Your task to perform on an android device: Show the shopping cart on bestbuy.com. Add "razer deathadder" to the cart on bestbuy.com Image 0: 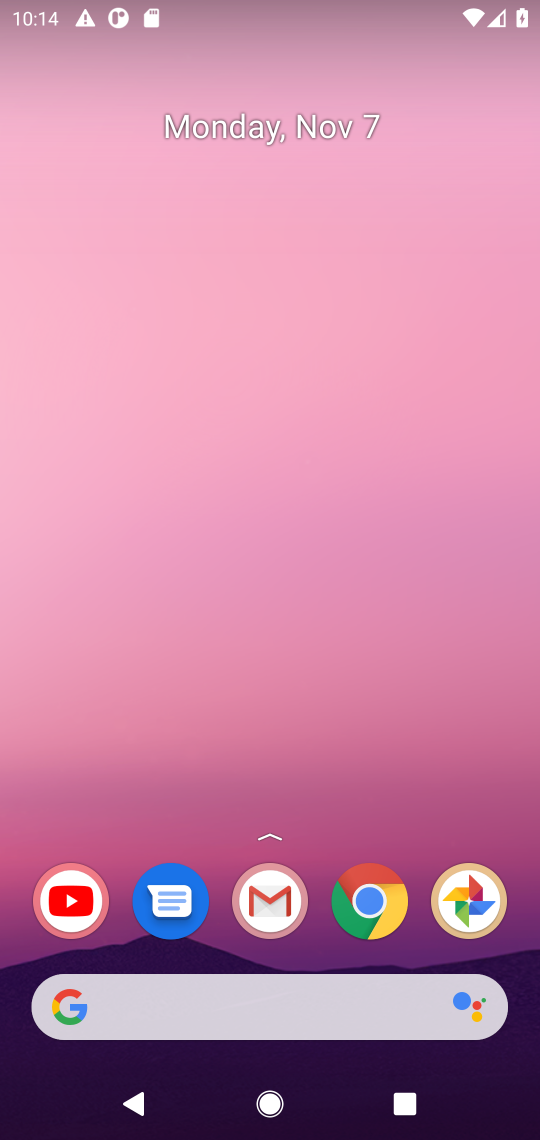
Step 0: click (362, 900)
Your task to perform on an android device: Show the shopping cart on bestbuy.com. Add "razer deathadder" to the cart on bestbuy.com Image 1: 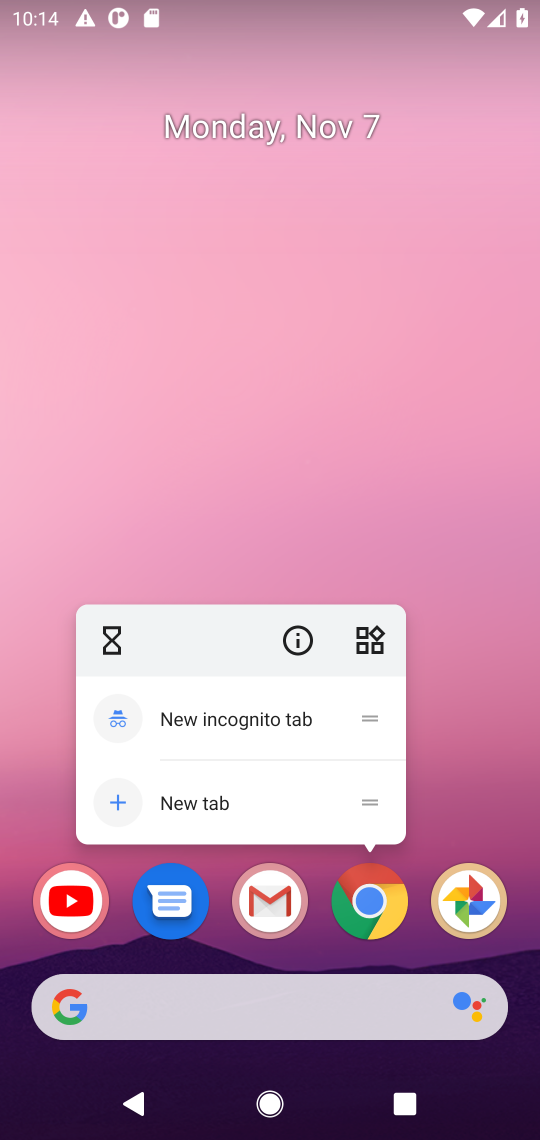
Step 1: click (362, 900)
Your task to perform on an android device: Show the shopping cart on bestbuy.com. Add "razer deathadder" to the cart on bestbuy.com Image 2: 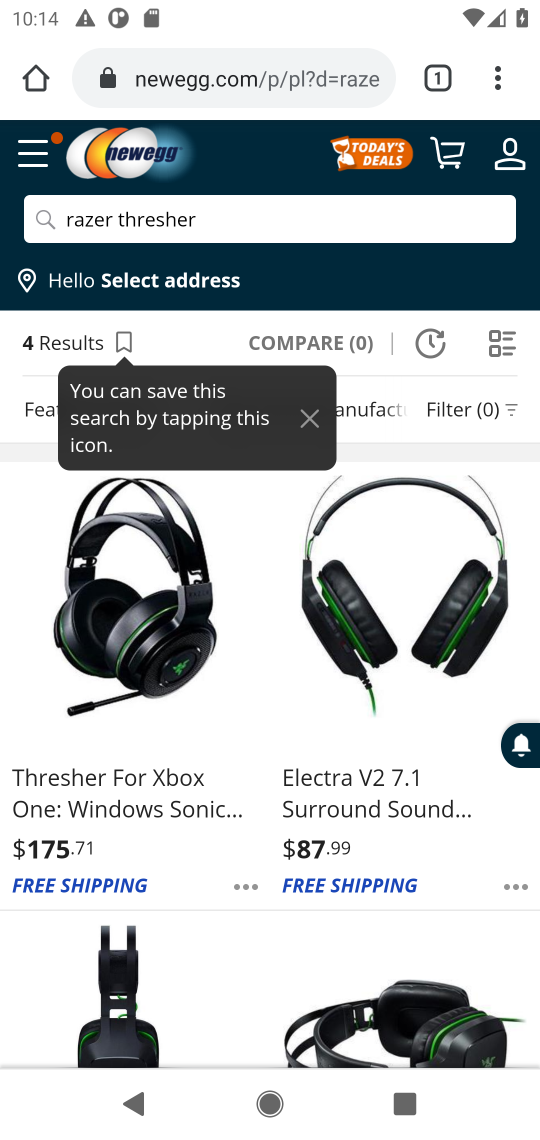
Step 2: click (237, 90)
Your task to perform on an android device: Show the shopping cart on bestbuy.com. Add "razer deathadder" to the cart on bestbuy.com Image 3: 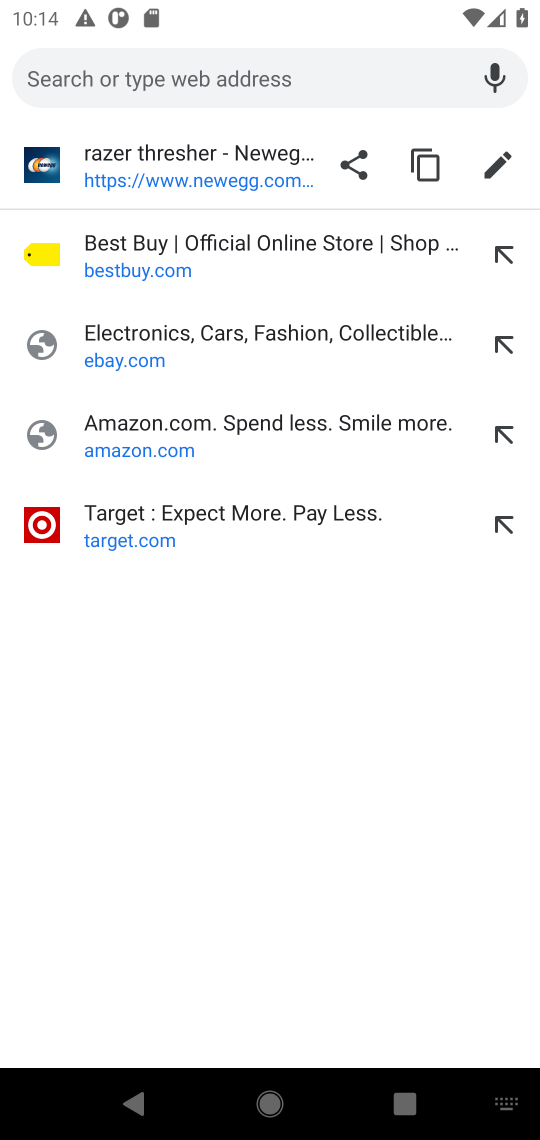
Step 3: type "bestbuy.com"
Your task to perform on an android device: Show the shopping cart on bestbuy.com. Add "razer deathadder" to the cart on bestbuy.com Image 4: 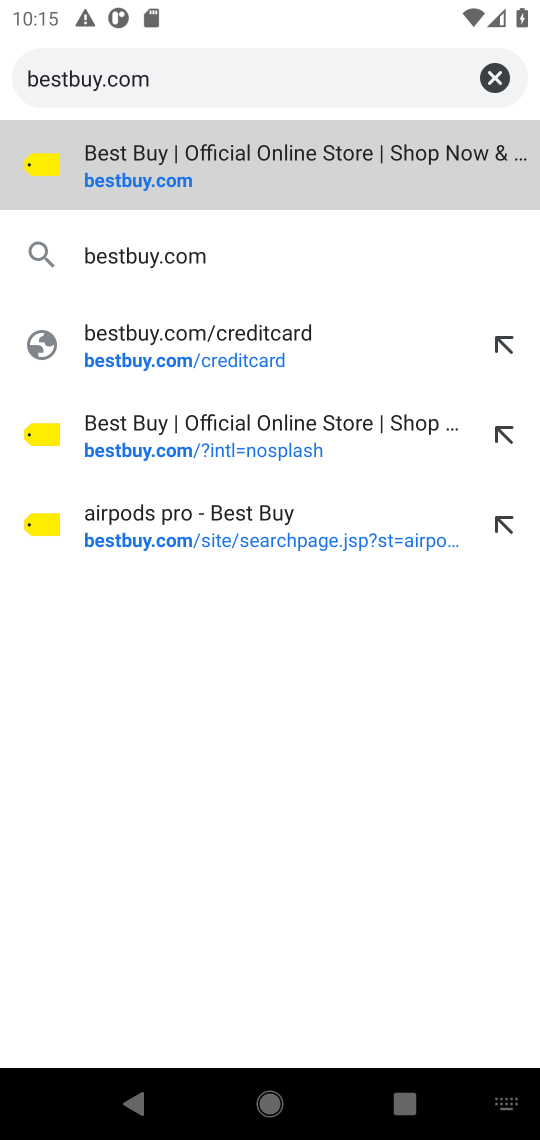
Step 4: click (334, 172)
Your task to perform on an android device: Show the shopping cart on bestbuy.com. Add "razer deathadder" to the cart on bestbuy.com Image 5: 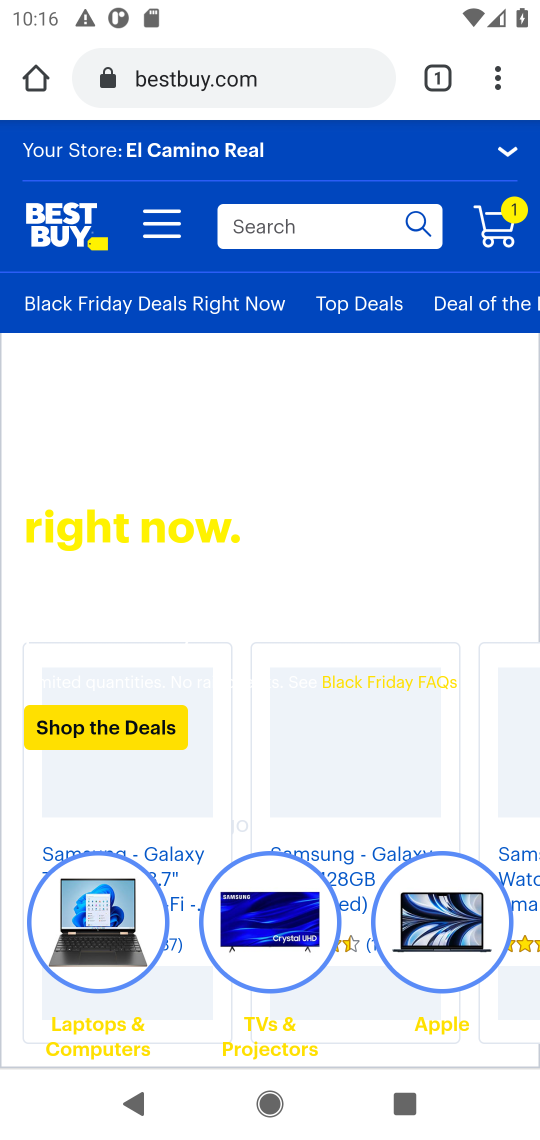
Step 5: click (285, 226)
Your task to perform on an android device: Show the shopping cart on bestbuy.com. Add "razer deathadder" to the cart on bestbuy.com Image 6: 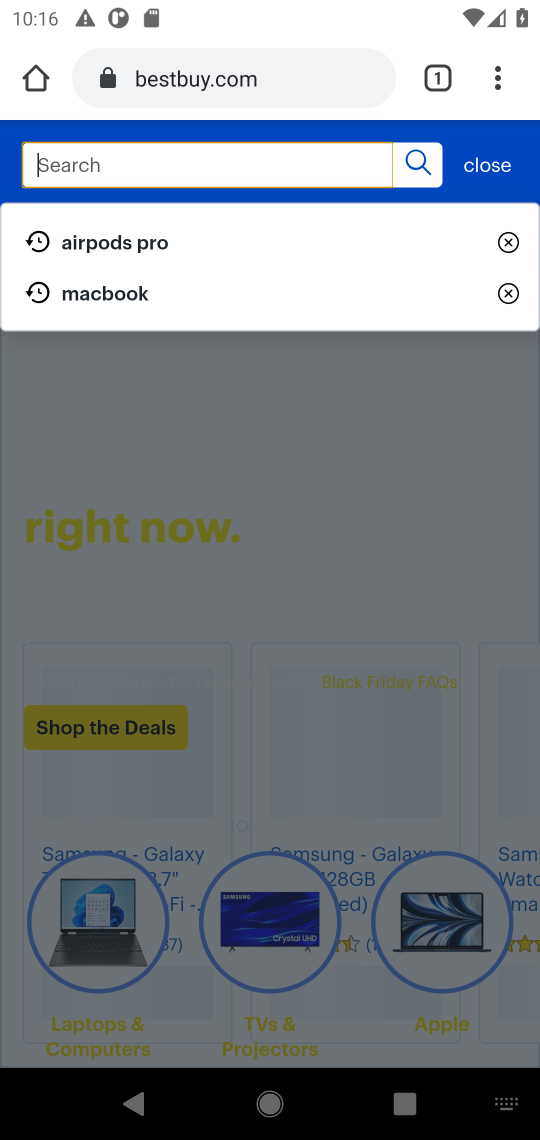
Step 6: type "razer deathadder"
Your task to perform on an android device: Show the shopping cart on bestbuy.com. Add "razer deathadder" to the cart on bestbuy.com Image 7: 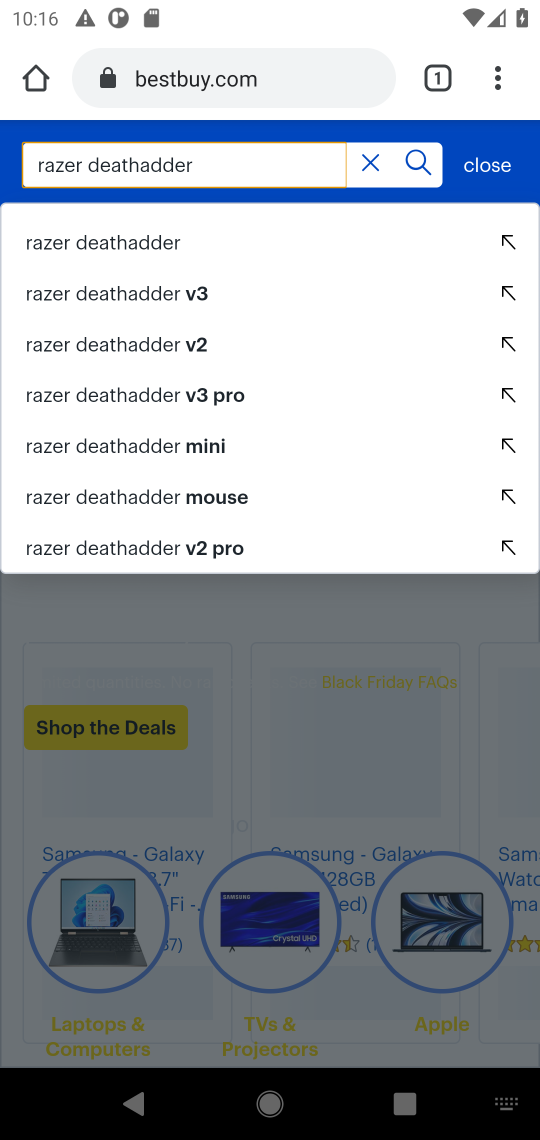
Step 7: press enter
Your task to perform on an android device: Show the shopping cart on bestbuy.com. Add "razer deathadder" to the cart on bestbuy.com Image 8: 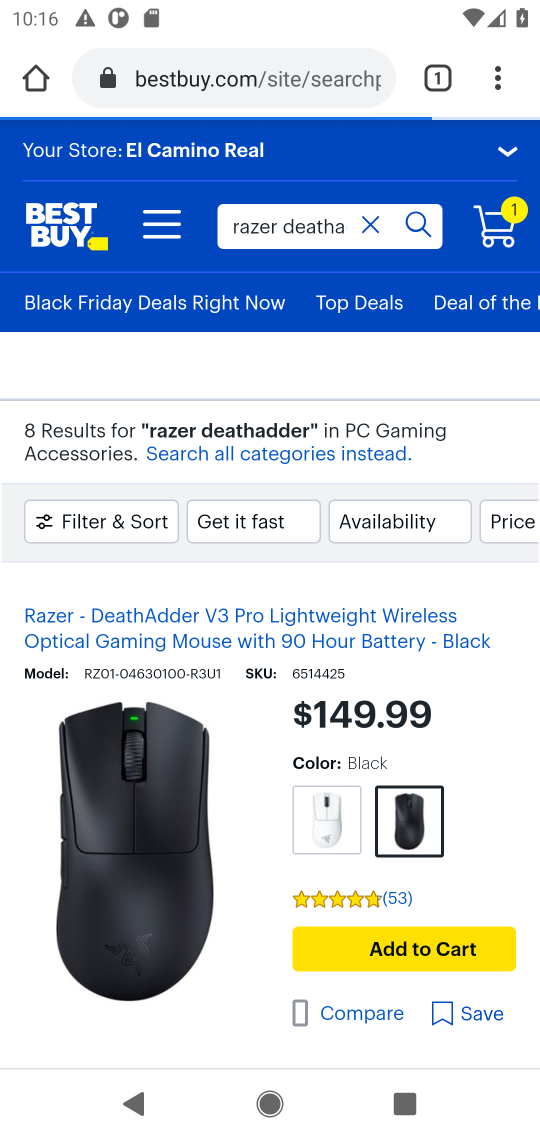
Step 8: drag from (161, 881) to (96, 458)
Your task to perform on an android device: Show the shopping cart on bestbuy.com. Add "razer deathadder" to the cart on bestbuy.com Image 9: 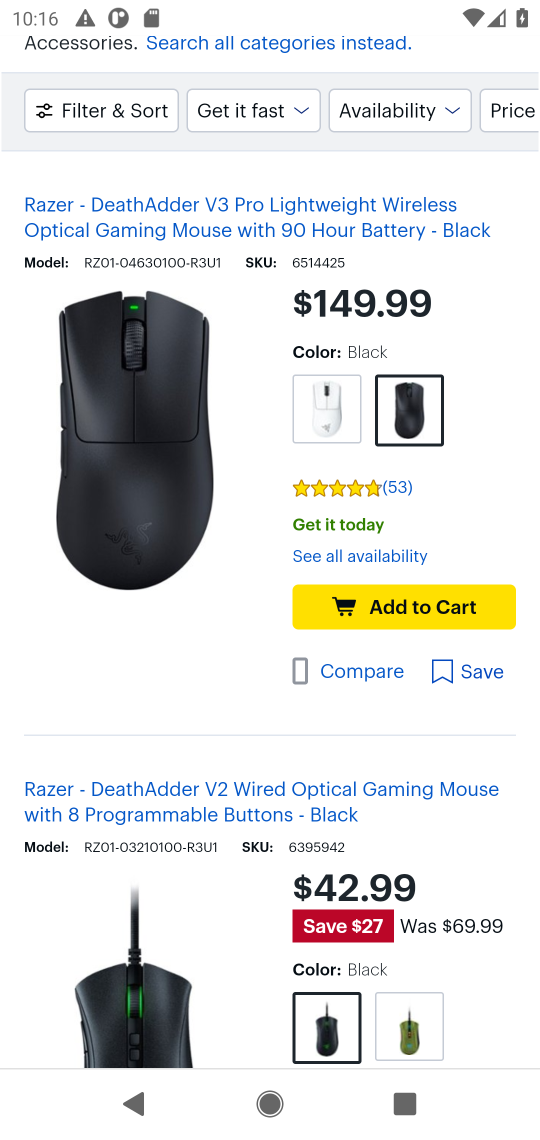
Step 9: click (401, 616)
Your task to perform on an android device: Show the shopping cart on bestbuy.com. Add "razer deathadder" to the cart on bestbuy.com Image 10: 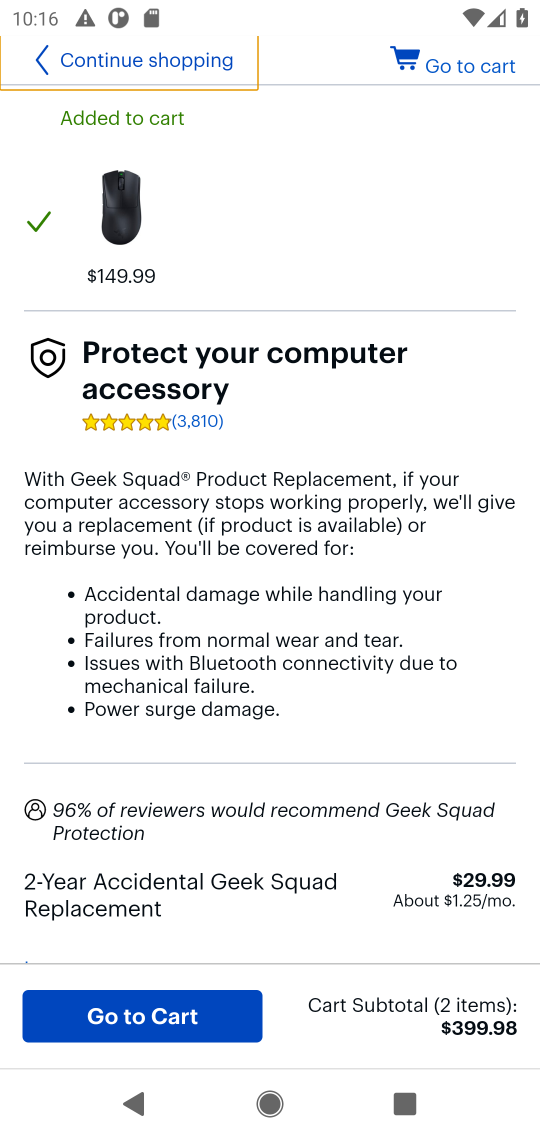
Step 10: task complete